Your task to perform on an android device: add a contact Image 0: 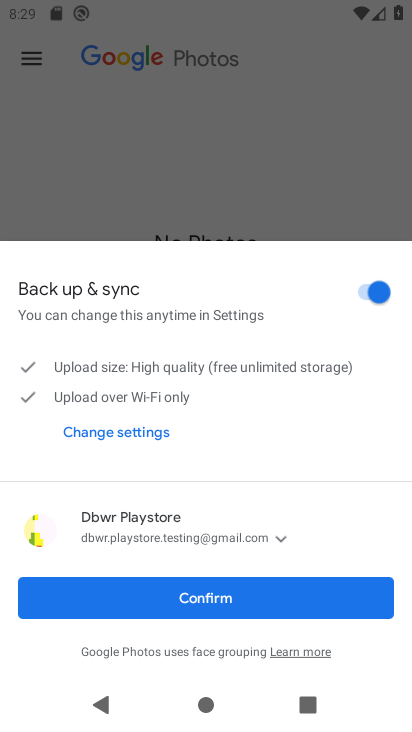
Step 0: click (304, 599)
Your task to perform on an android device: add a contact Image 1: 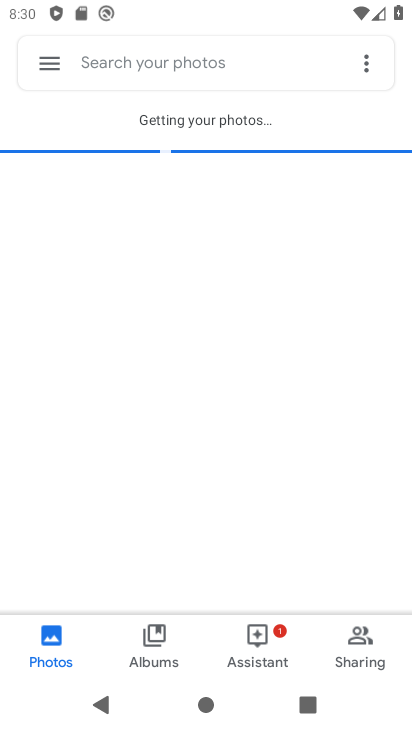
Step 1: press home button
Your task to perform on an android device: add a contact Image 2: 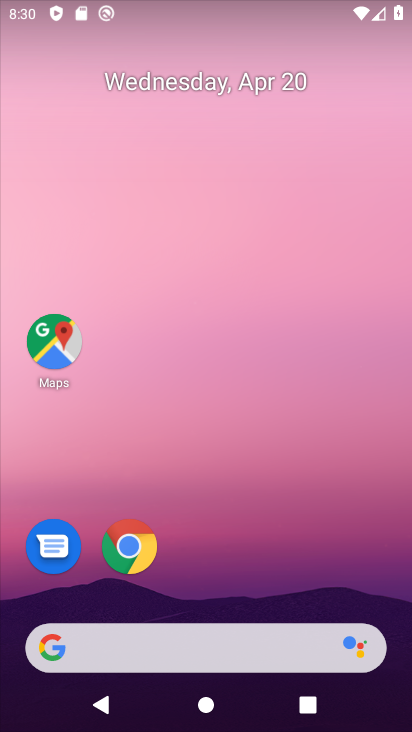
Step 2: drag from (274, 554) to (264, 49)
Your task to perform on an android device: add a contact Image 3: 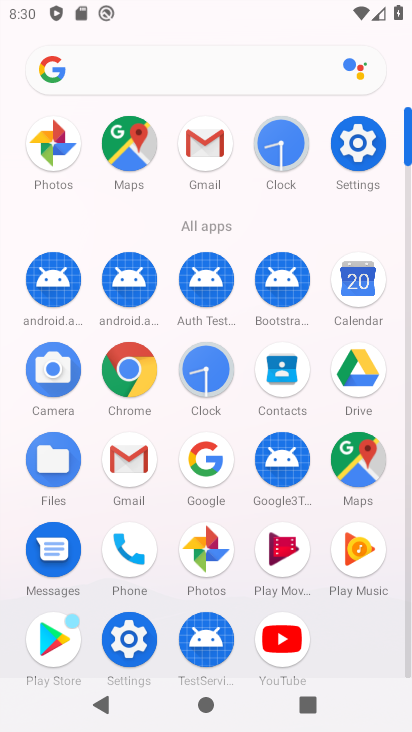
Step 3: click (277, 369)
Your task to perform on an android device: add a contact Image 4: 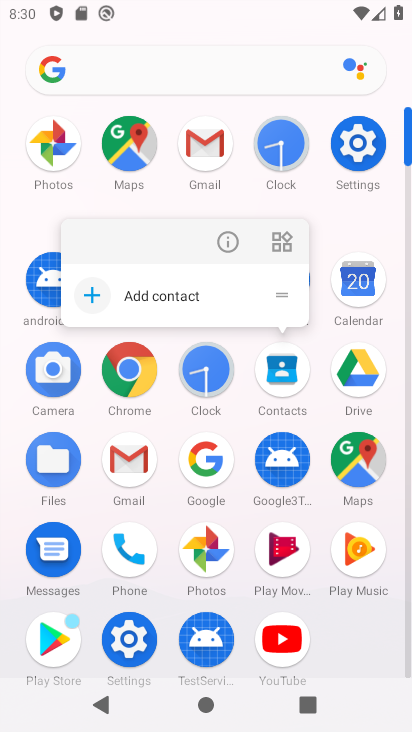
Step 4: click (276, 378)
Your task to perform on an android device: add a contact Image 5: 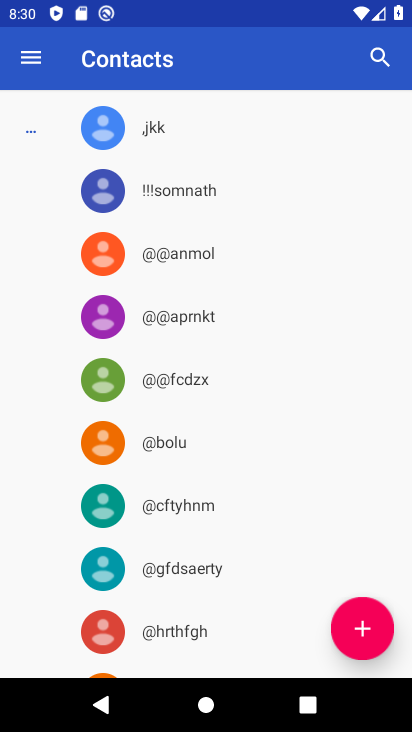
Step 5: click (383, 633)
Your task to perform on an android device: add a contact Image 6: 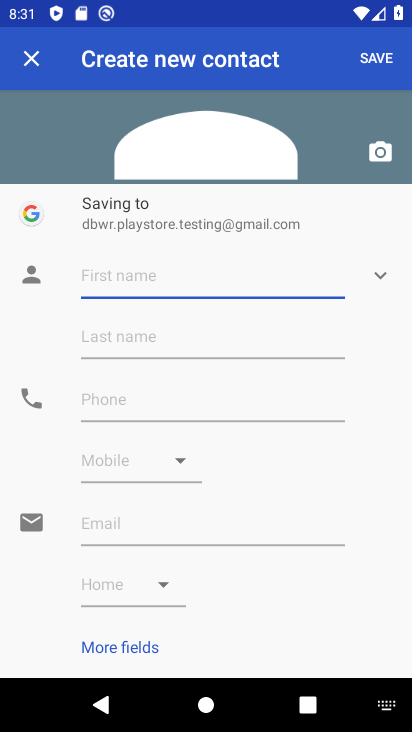
Step 6: type "sdgvev"
Your task to perform on an android device: add a contact Image 7: 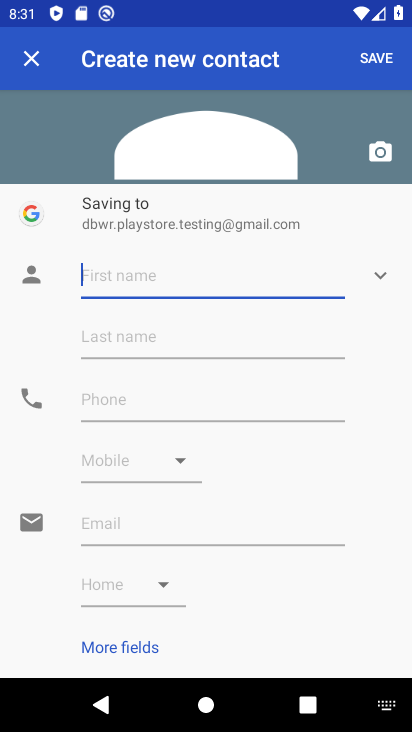
Step 7: click (154, 416)
Your task to perform on an android device: add a contact Image 8: 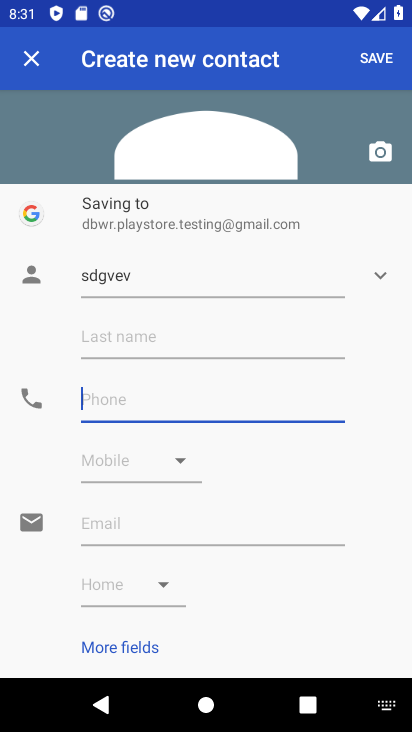
Step 8: type "1234567890"
Your task to perform on an android device: add a contact Image 9: 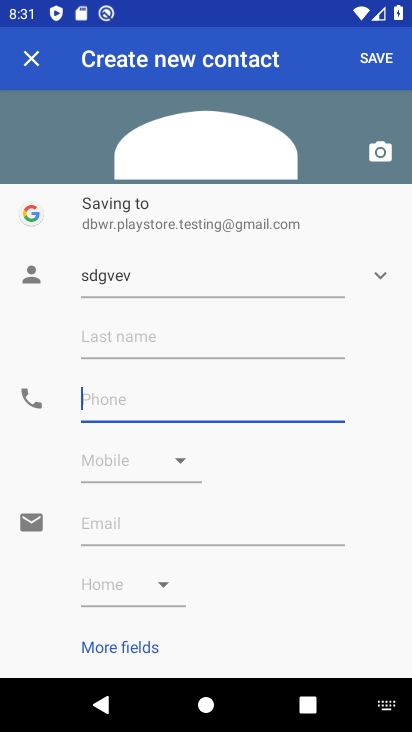
Step 9: click (377, 64)
Your task to perform on an android device: add a contact Image 10: 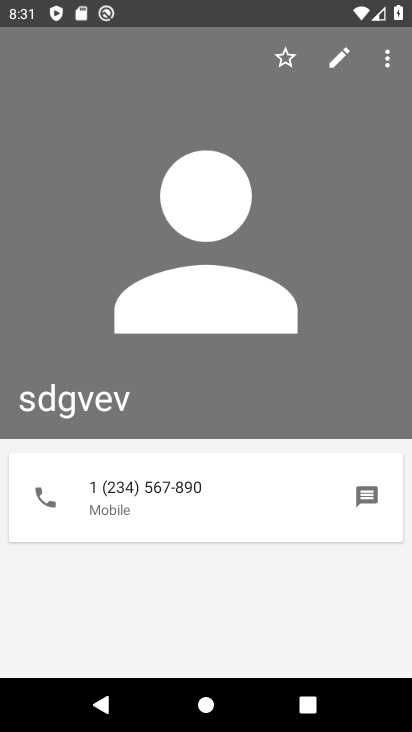
Step 10: task complete